Your task to perform on an android device: Open accessibility settings Image 0: 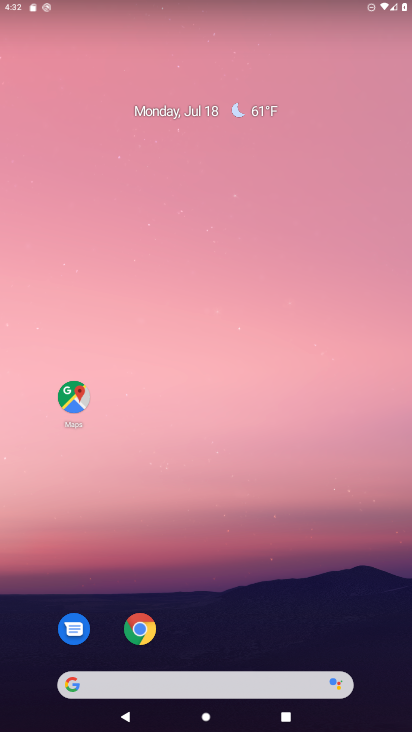
Step 0: drag from (240, 665) to (276, 144)
Your task to perform on an android device: Open accessibility settings Image 1: 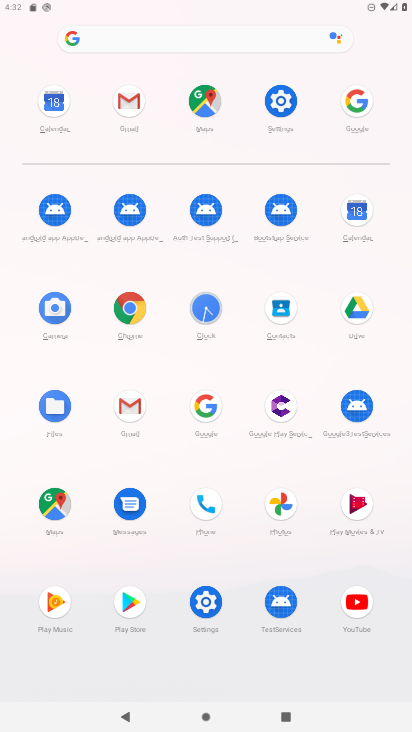
Step 1: click (287, 100)
Your task to perform on an android device: Open accessibility settings Image 2: 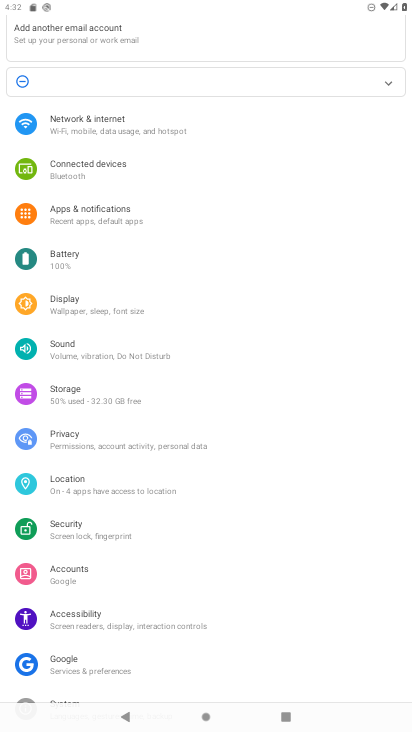
Step 2: click (73, 620)
Your task to perform on an android device: Open accessibility settings Image 3: 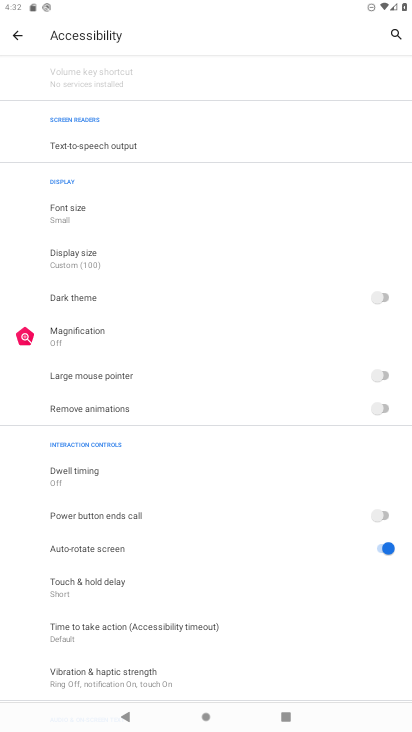
Step 3: task complete